Your task to perform on an android device: Open the calendar and show me this week's events Image 0: 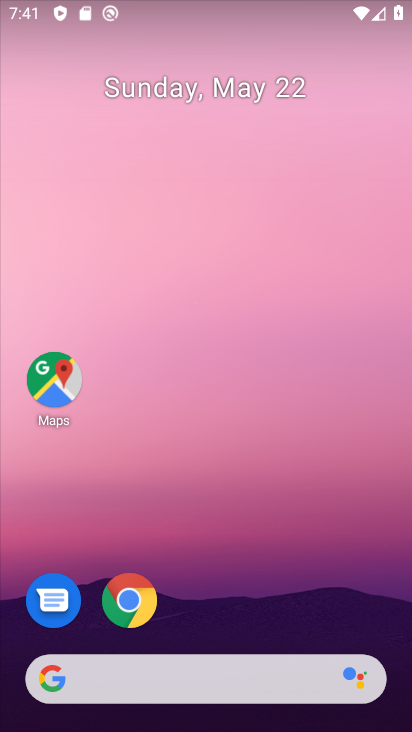
Step 0: drag from (254, 574) to (305, 167)
Your task to perform on an android device: Open the calendar and show me this week's events Image 1: 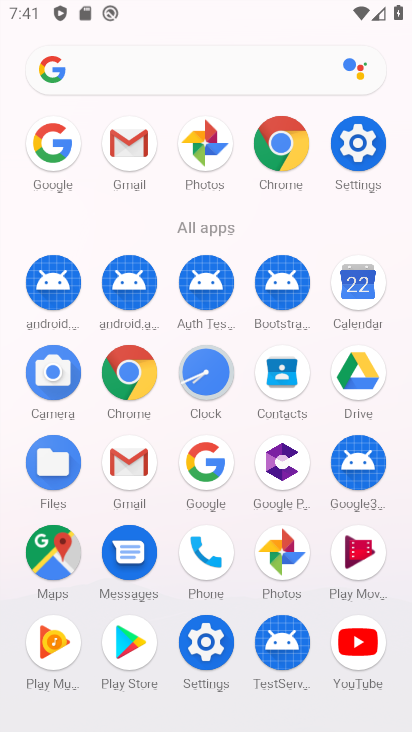
Step 1: click (360, 296)
Your task to perform on an android device: Open the calendar and show me this week's events Image 2: 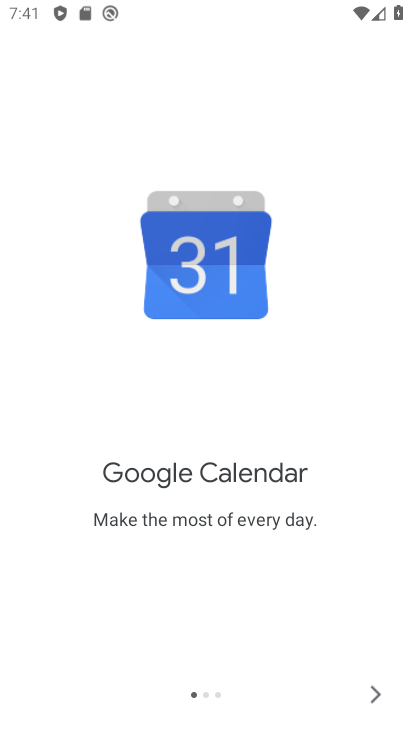
Step 2: click (371, 690)
Your task to perform on an android device: Open the calendar and show me this week's events Image 3: 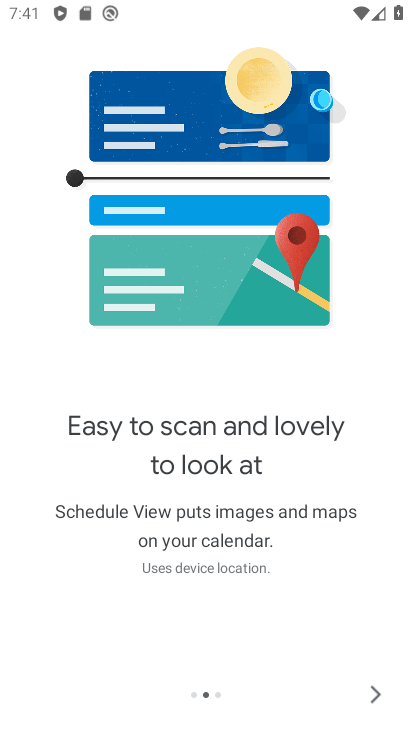
Step 3: click (371, 690)
Your task to perform on an android device: Open the calendar and show me this week's events Image 4: 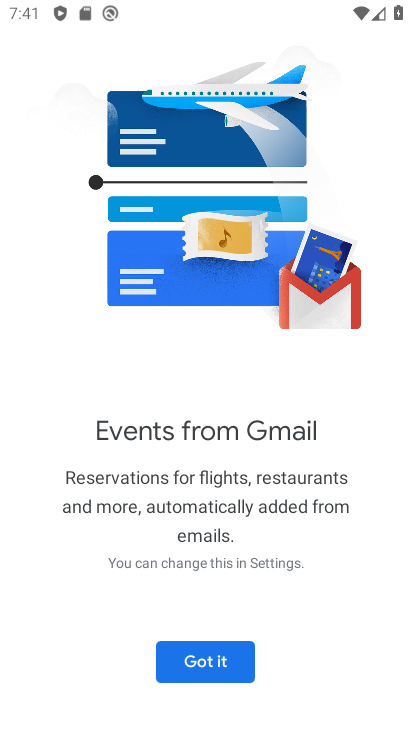
Step 4: click (188, 672)
Your task to perform on an android device: Open the calendar and show me this week's events Image 5: 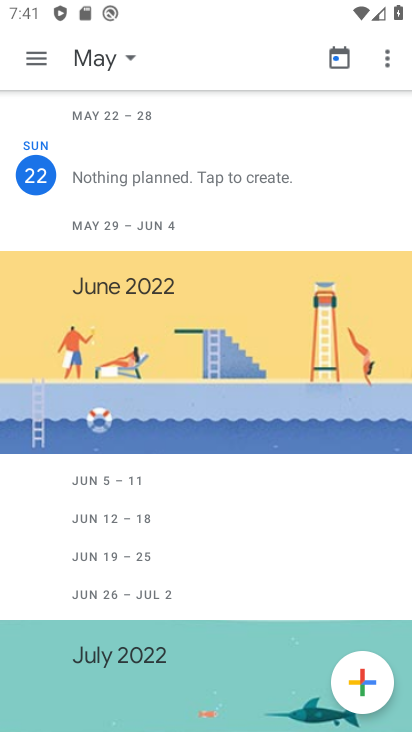
Step 5: click (112, 63)
Your task to perform on an android device: Open the calendar and show me this week's events Image 6: 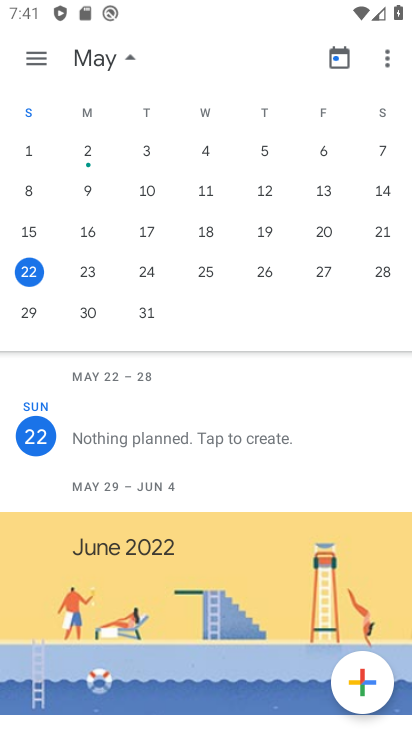
Step 6: drag from (181, 565) to (161, 428)
Your task to perform on an android device: Open the calendar and show me this week's events Image 7: 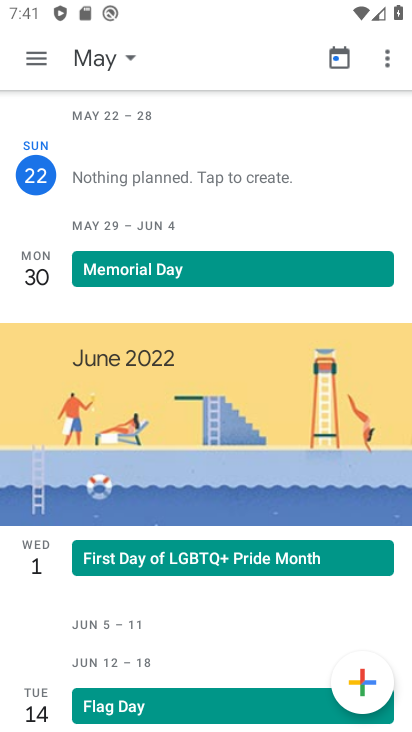
Step 7: click (159, 163)
Your task to perform on an android device: Open the calendar and show me this week's events Image 8: 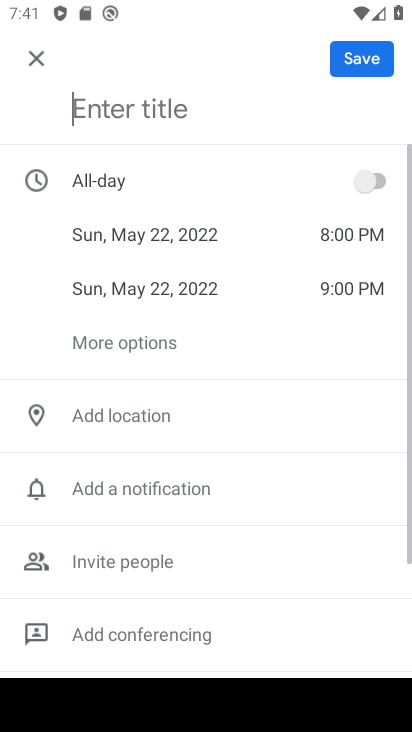
Step 8: click (159, 174)
Your task to perform on an android device: Open the calendar and show me this week's events Image 9: 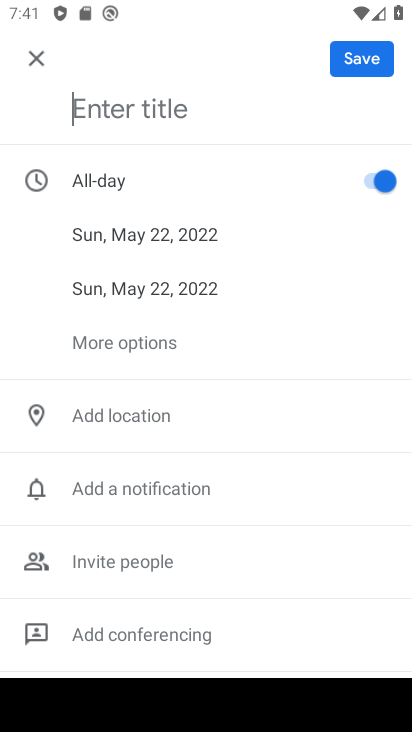
Step 9: task complete